Your task to perform on an android device: change your default location settings in chrome Image 0: 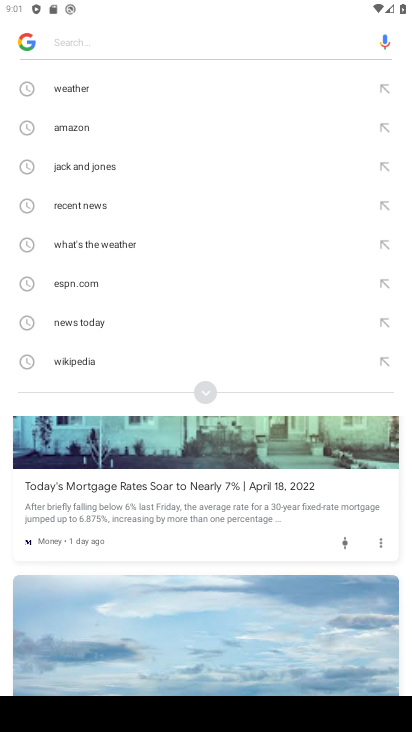
Step 0: press home button
Your task to perform on an android device: change your default location settings in chrome Image 1: 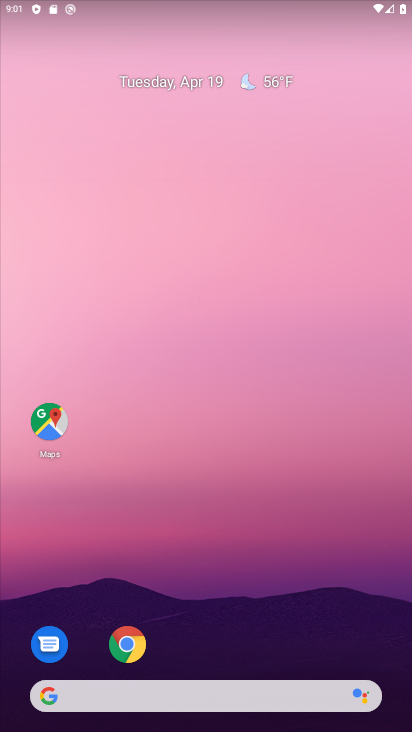
Step 1: click (138, 636)
Your task to perform on an android device: change your default location settings in chrome Image 2: 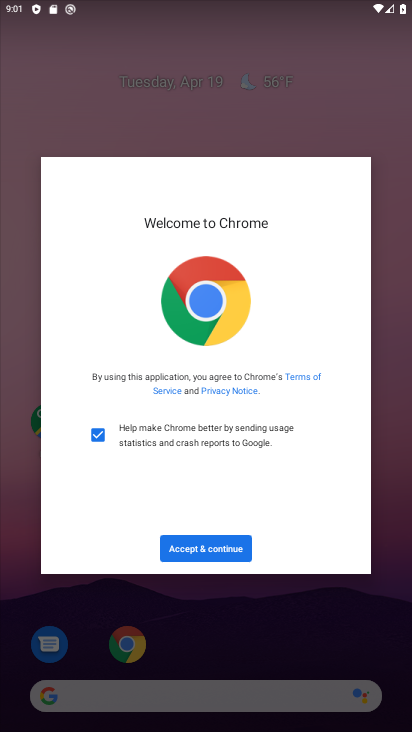
Step 2: click (207, 541)
Your task to perform on an android device: change your default location settings in chrome Image 3: 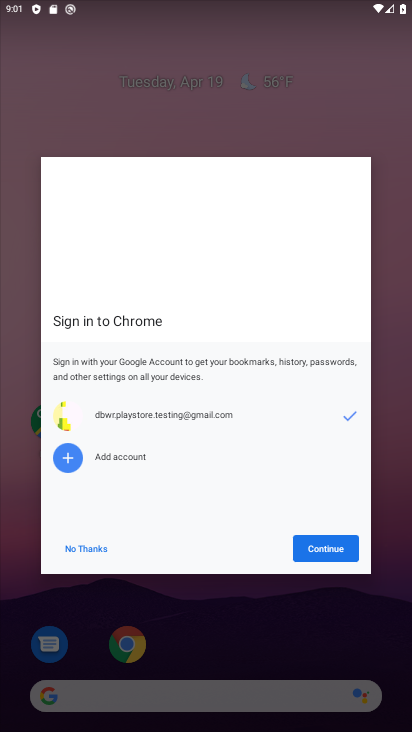
Step 3: click (309, 534)
Your task to perform on an android device: change your default location settings in chrome Image 4: 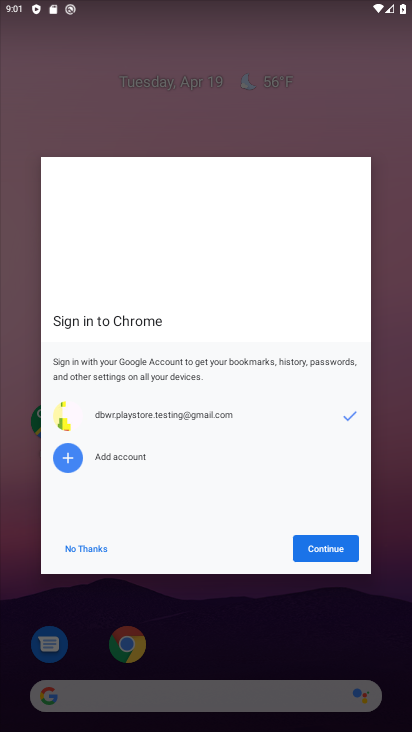
Step 4: click (307, 550)
Your task to perform on an android device: change your default location settings in chrome Image 5: 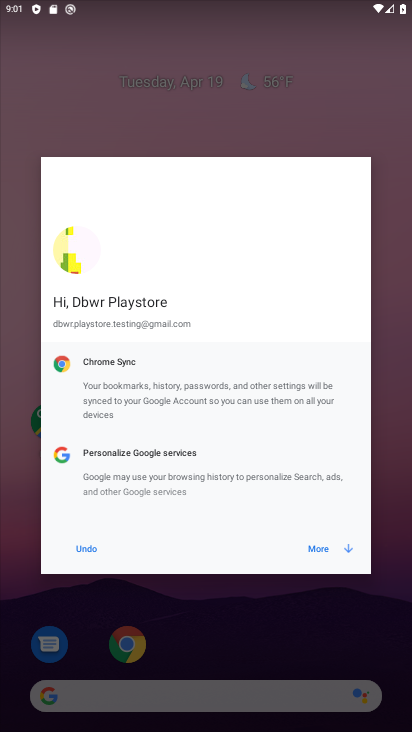
Step 5: click (312, 541)
Your task to perform on an android device: change your default location settings in chrome Image 6: 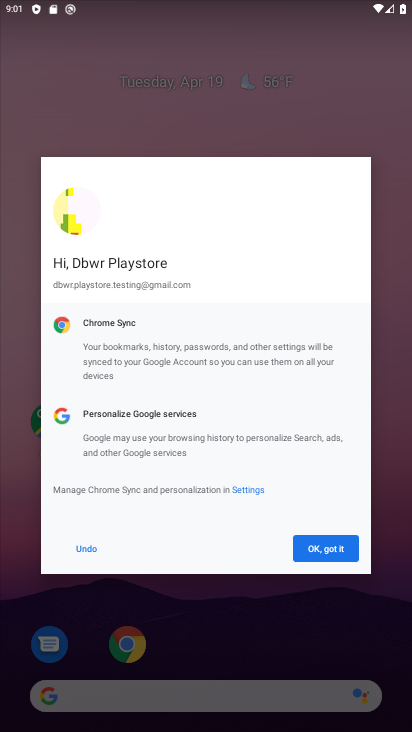
Step 6: click (312, 541)
Your task to perform on an android device: change your default location settings in chrome Image 7: 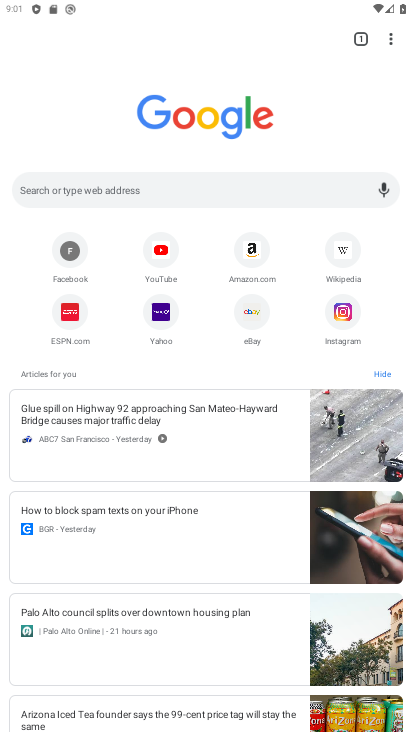
Step 7: drag from (391, 42) to (264, 318)
Your task to perform on an android device: change your default location settings in chrome Image 8: 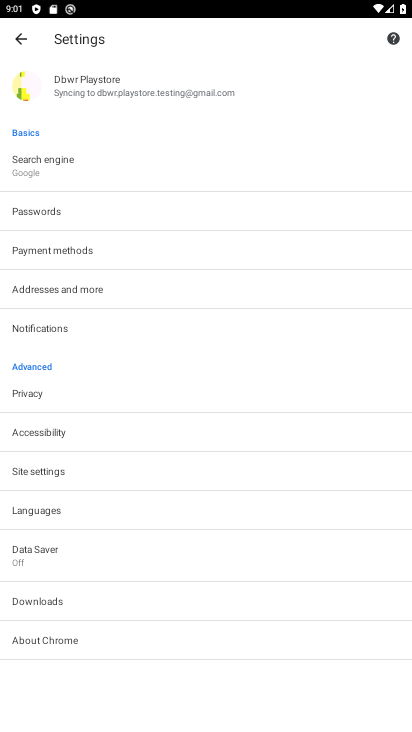
Step 8: click (64, 477)
Your task to perform on an android device: change your default location settings in chrome Image 9: 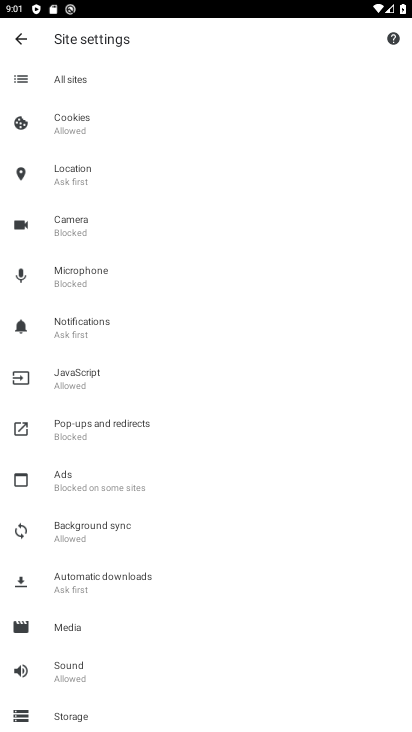
Step 9: click (92, 174)
Your task to perform on an android device: change your default location settings in chrome Image 10: 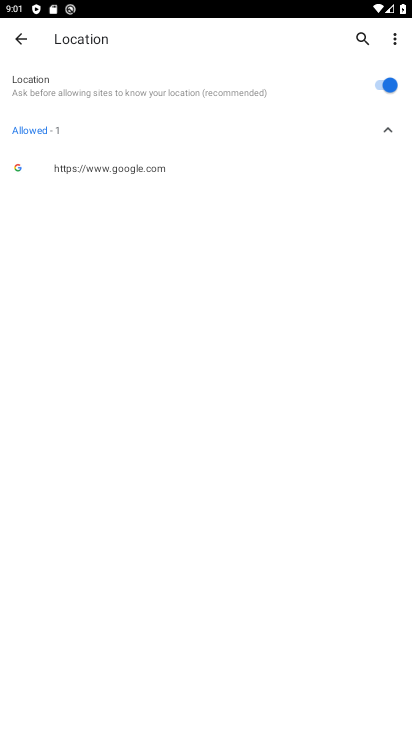
Step 10: click (376, 84)
Your task to perform on an android device: change your default location settings in chrome Image 11: 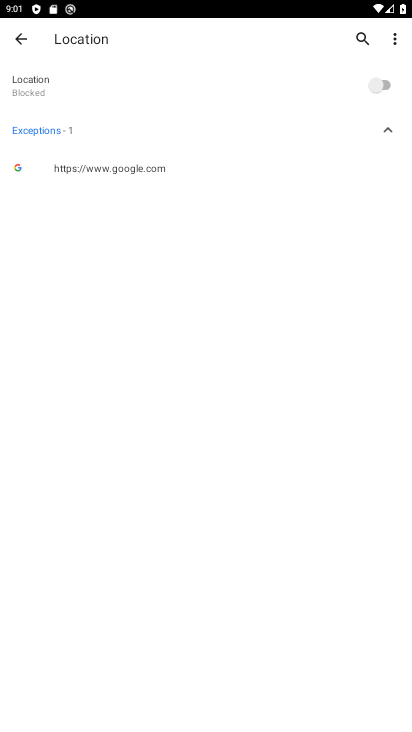
Step 11: task complete